Your task to perform on an android device: View the shopping cart on ebay. Image 0: 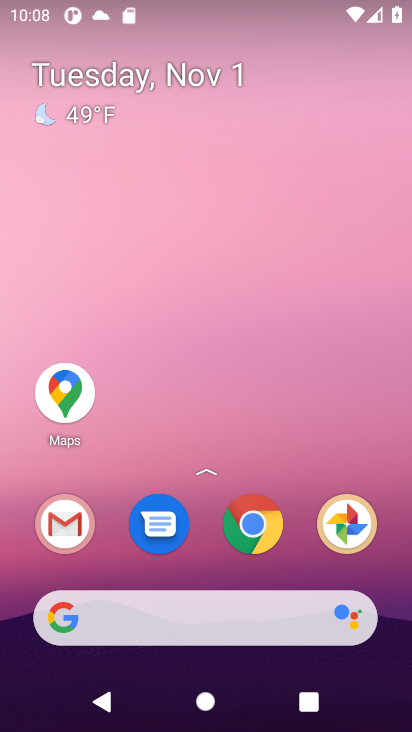
Step 0: press home button
Your task to perform on an android device: View the shopping cart on ebay. Image 1: 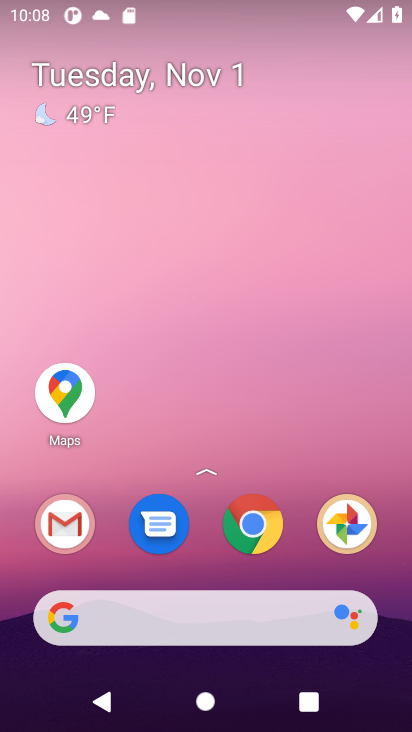
Step 1: click (107, 618)
Your task to perform on an android device: View the shopping cart on ebay. Image 2: 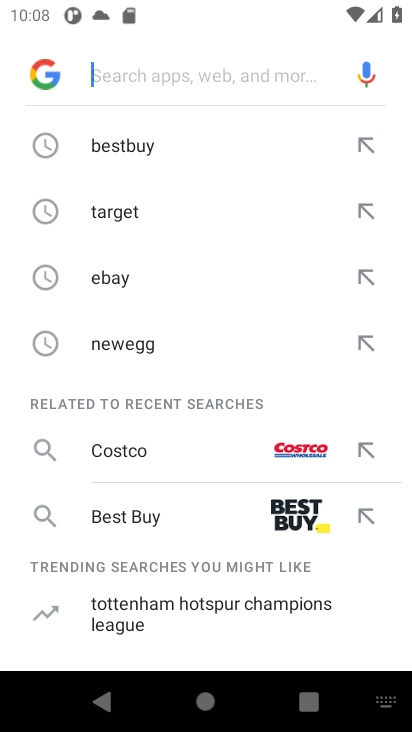
Step 2: type "ebay"
Your task to perform on an android device: View the shopping cart on ebay. Image 3: 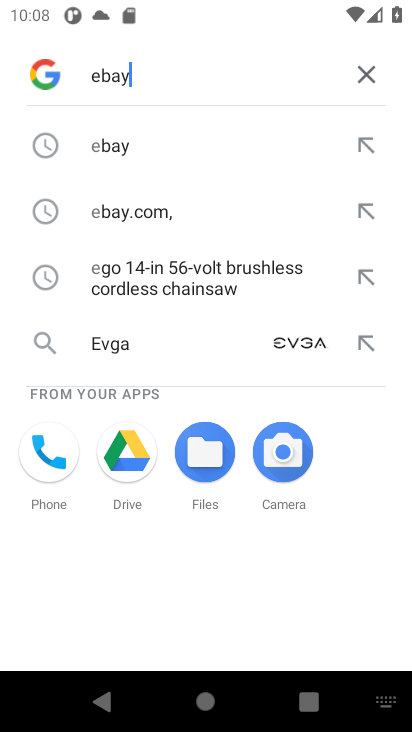
Step 3: press enter
Your task to perform on an android device: View the shopping cart on ebay. Image 4: 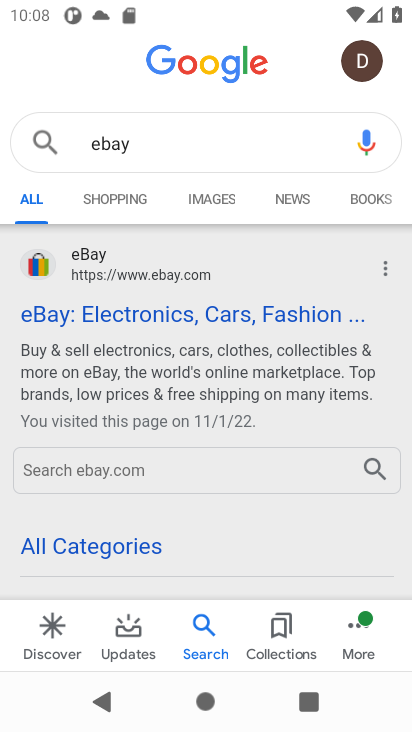
Step 4: click (175, 314)
Your task to perform on an android device: View the shopping cart on ebay. Image 5: 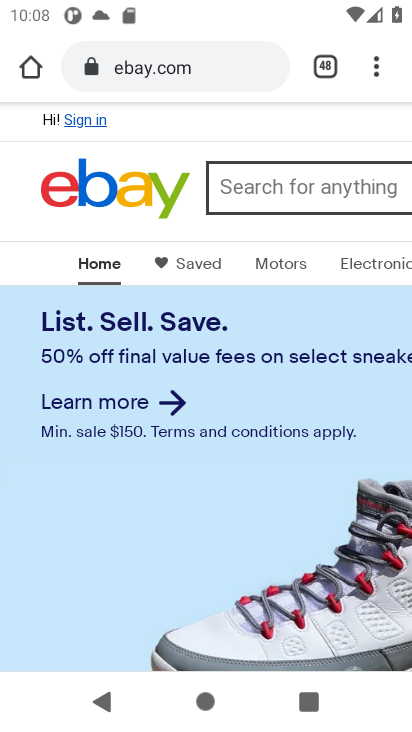
Step 5: drag from (318, 227) to (5, 214)
Your task to perform on an android device: View the shopping cart on ebay. Image 6: 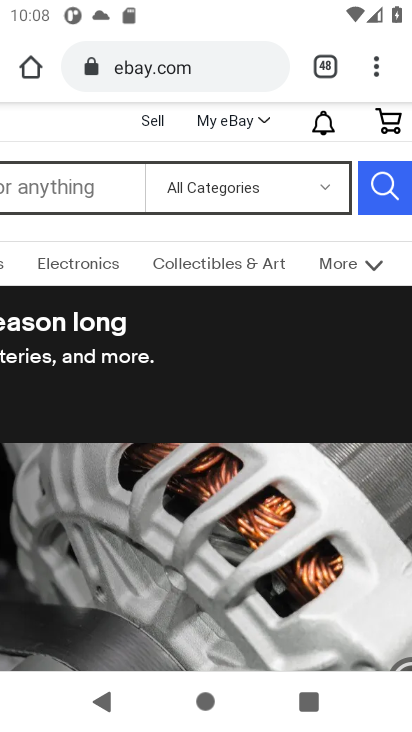
Step 6: drag from (361, 234) to (57, 235)
Your task to perform on an android device: View the shopping cart on ebay. Image 7: 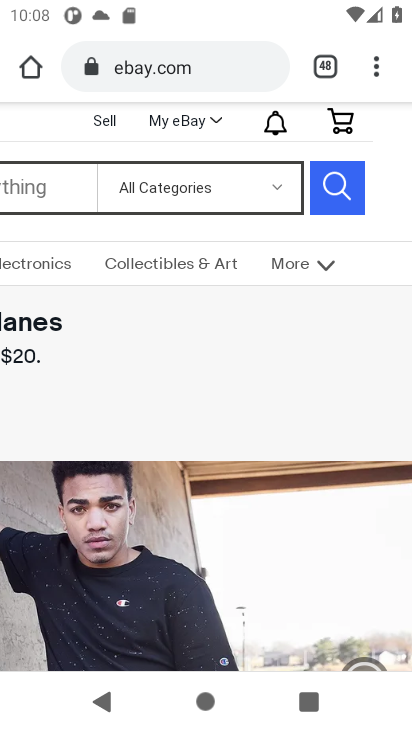
Step 7: click (342, 127)
Your task to perform on an android device: View the shopping cart on ebay. Image 8: 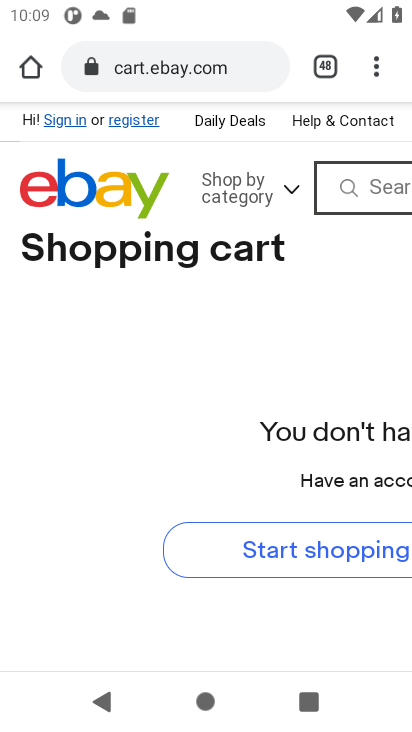
Step 8: task complete